Your task to perform on an android device: Open Google Maps Image 0: 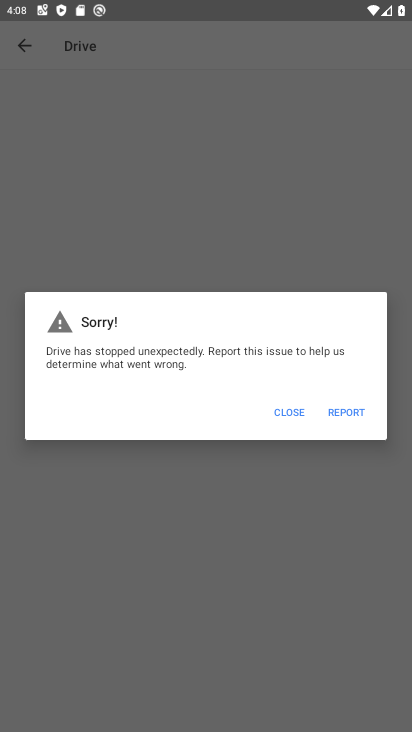
Step 0: press home button
Your task to perform on an android device: Open Google Maps Image 1: 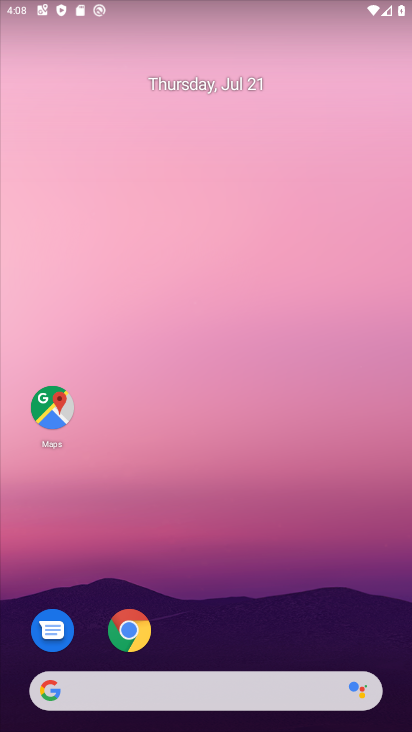
Step 1: click (53, 408)
Your task to perform on an android device: Open Google Maps Image 2: 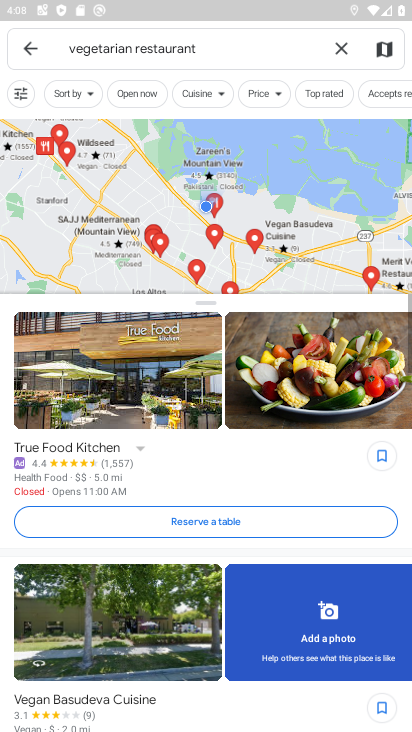
Step 2: click (341, 48)
Your task to perform on an android device: Open Google Maps Image 3: 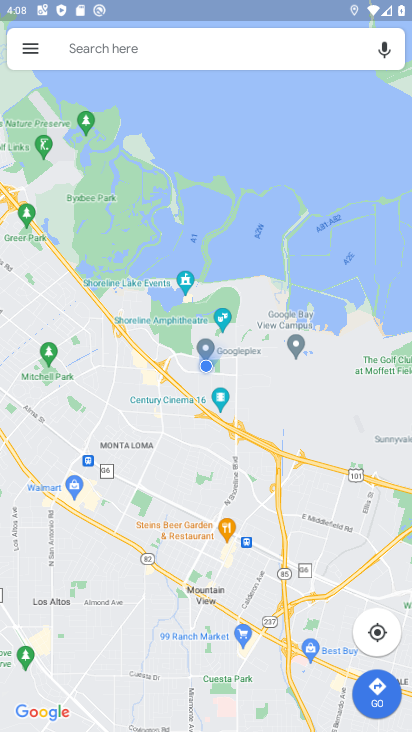
Step 3: task complete